Your task to perform on an android device: Open Youtube and go to "Your channel" Image 0: 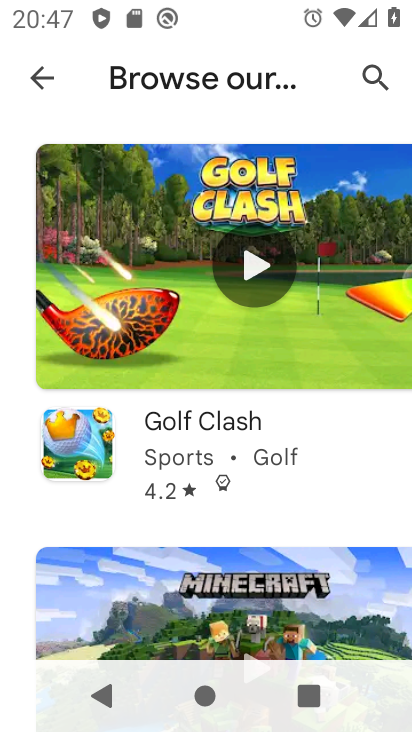
Step 0: press home button
Your task to perform on an android device: Open Youtube and go to "Your channel" Image 1: 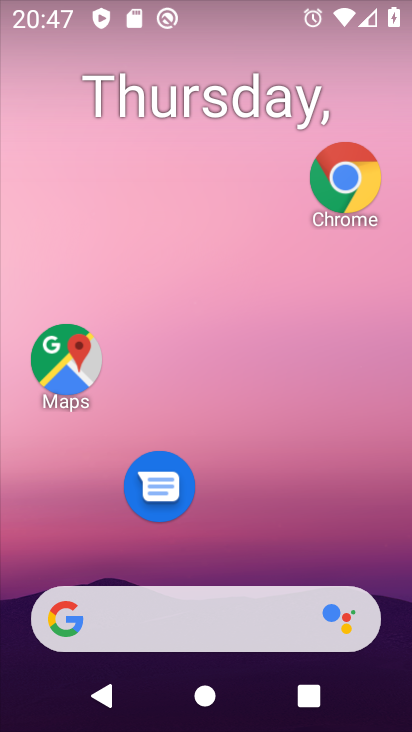
Step 1: drag from (260, 573) to (199, 22)
Your task to perform on an android device: Open Youtube and go to "Your channel" Image 2: 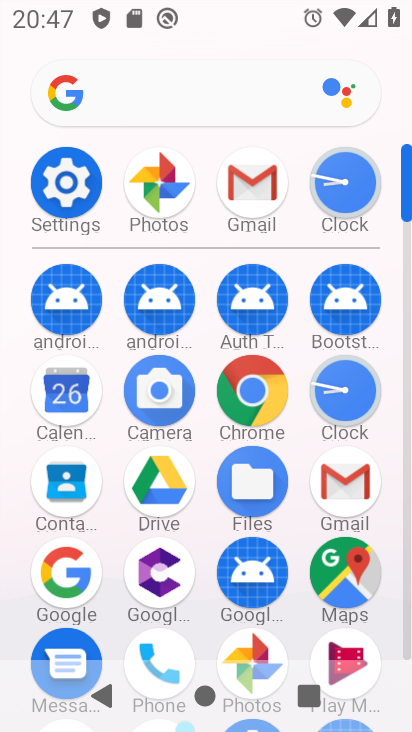
Step 2: drag from (298, 509) to (264, 109)
Your task to perform on an android device: Open Youtube and go to "Your channel" Image 3: 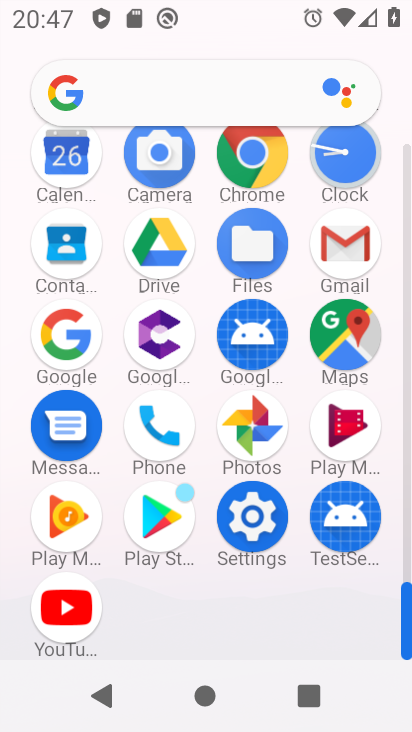
Step 3: click (71, 598)
Your task to perform on an android device: Open Youtube and go to "Your channel" Image 4: 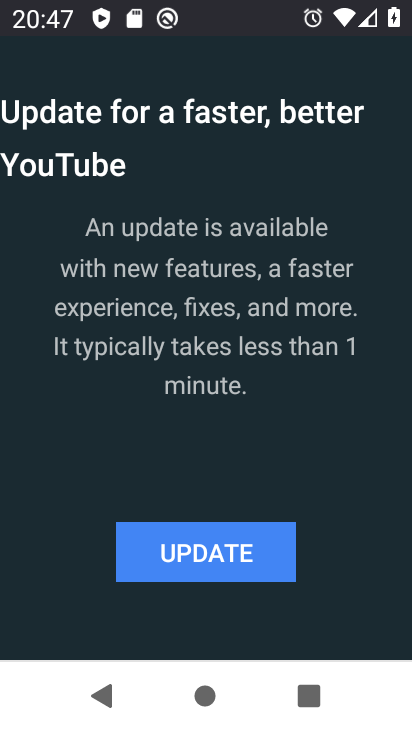
Step 4: click (173, 581)
Your task to perform on an android device: Open Youtube and go to "Your channel" Image 5: 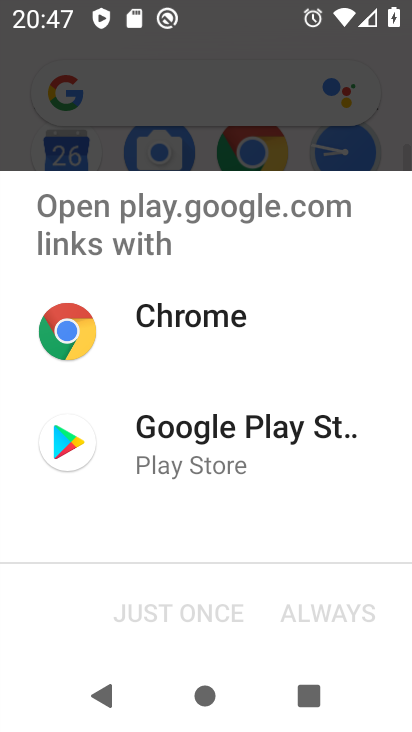
Step 5: click (205, 477)
Your task to perform on an android device: Open Youtube and go to "Your channel" Image 6: 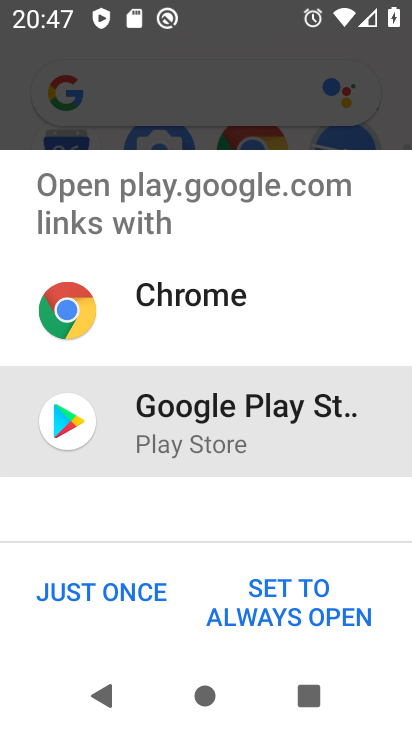
Step 6: click (128, 597)
Your task to perform on an android device: Open Youtube and go to "Your channel" Image 7: 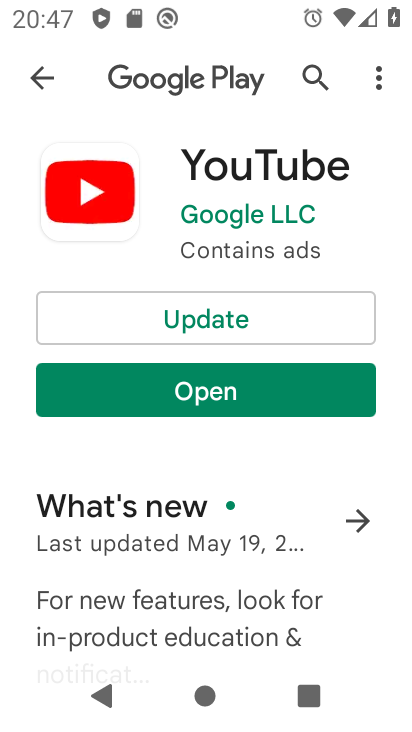
Step 7: click (255, 333)
Your task to perform on an android device: Open Youtube and go to "Your channel" Image 8: 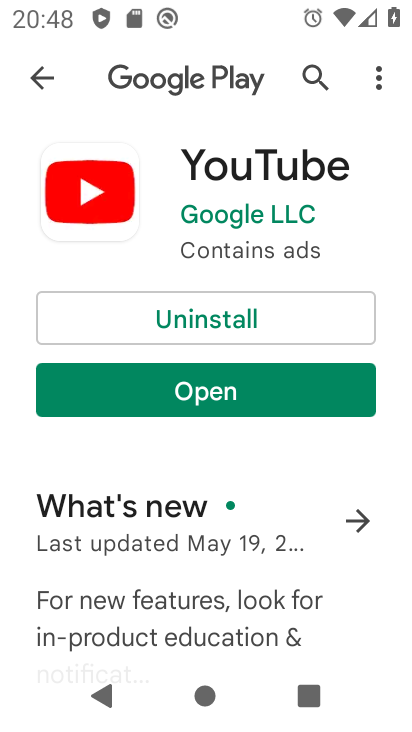
Step 8: click (281, 377)
Your task to perform on an android device: Open Youtube and go to "Your channel" Image 9: 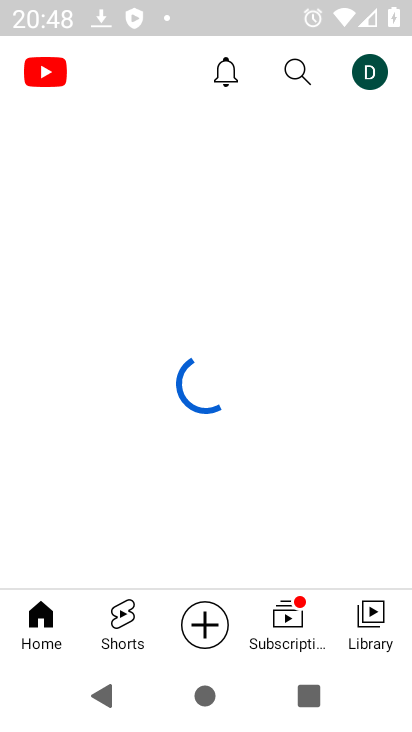
Step 9: click (370, 67)
Your task to perform on an android device: Open Youtube and go to "Your channel" Image 10: 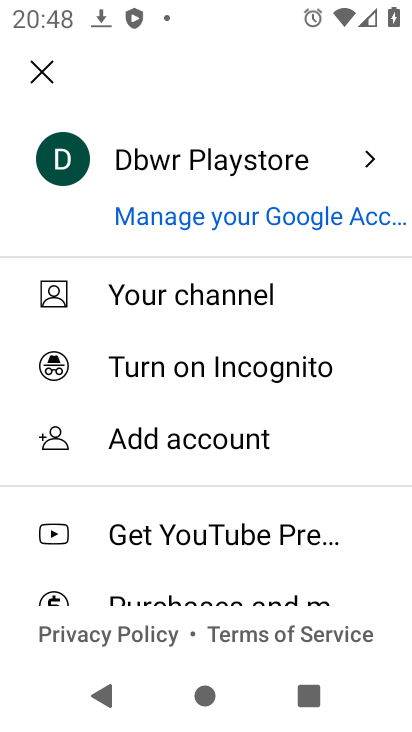
Step 10: click (170, 289)
Your task to perform on an android device: Open Youtube and go to "Your channel" Image 11: 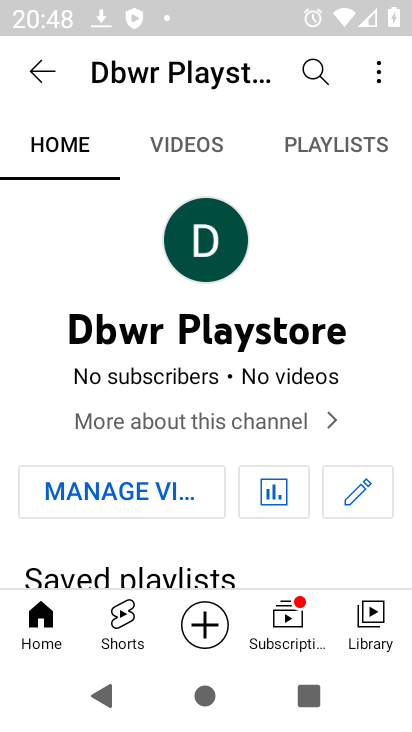
Step 11: task complete